Your task to perform on an android device: Open Yahoo.com Image 0: 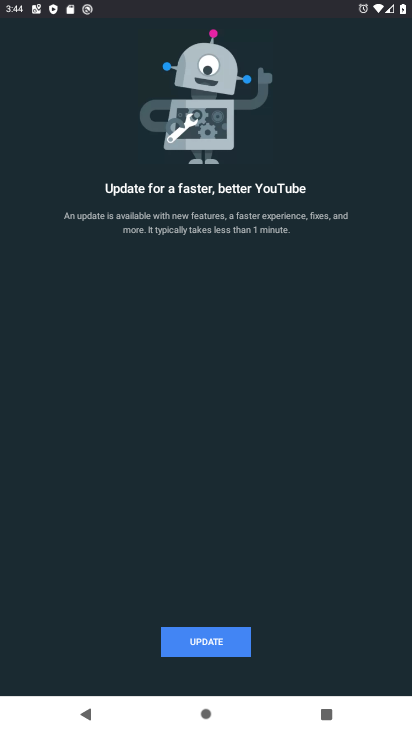
Step 0: press back button
Your task to perform on an android device: Open Yahoo.com Image 1: 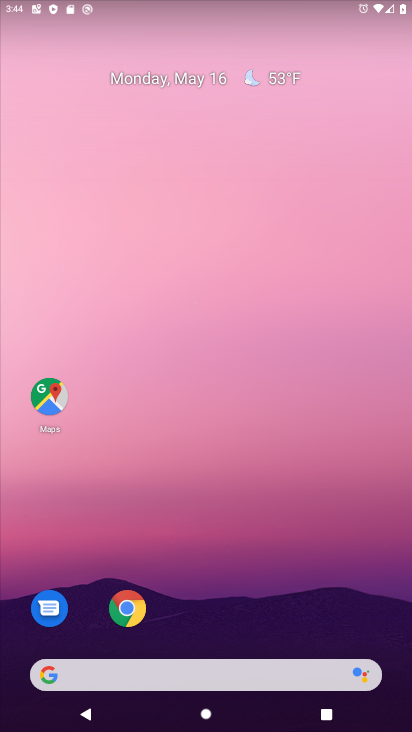
Step 1: click (128, 607)
Your task to perform on an android device: Open Yahoo.com Image 2: 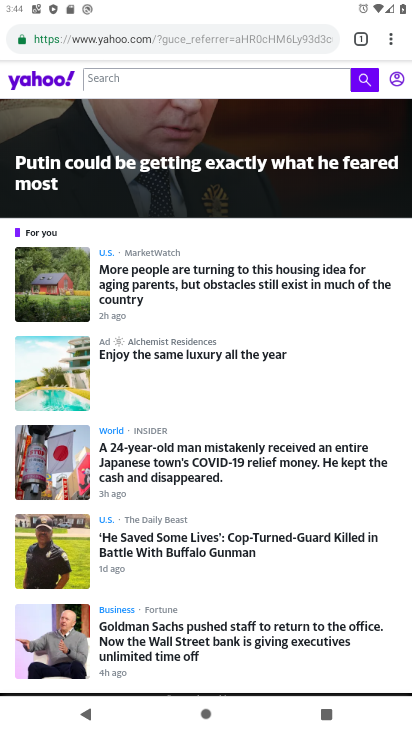
Step 2: click (249, 39)
Your task to perform on an android device: Open Yahoo.com Image 3: 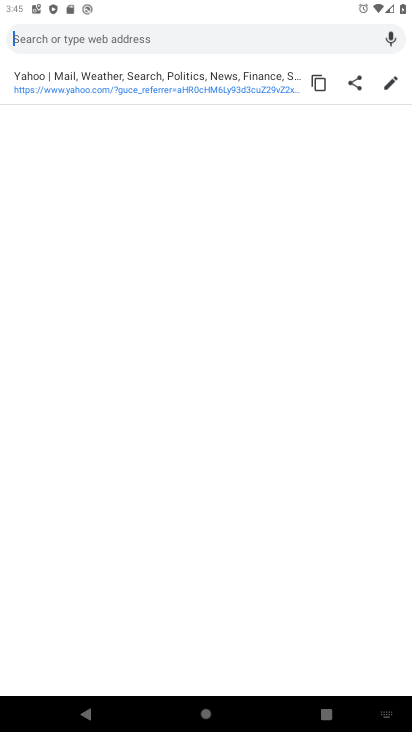
Step 3: type "Yahoo.com"
Your task to perform on an android device: Open Yahoo.com Image 4: 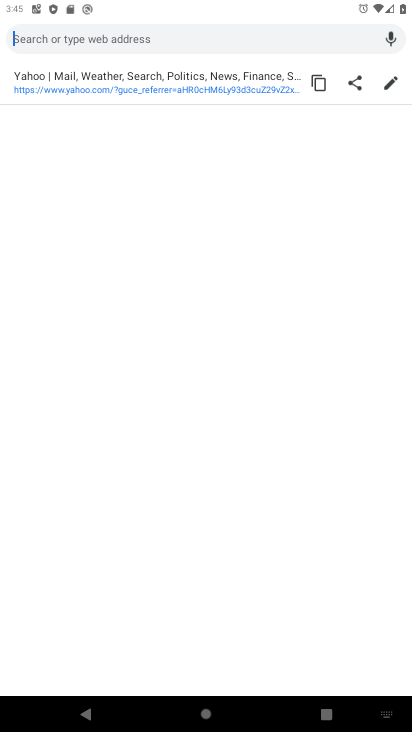
Step 4: click (202, 84)
Your task to perform on an android device: Open Yahoo.com Image 5: 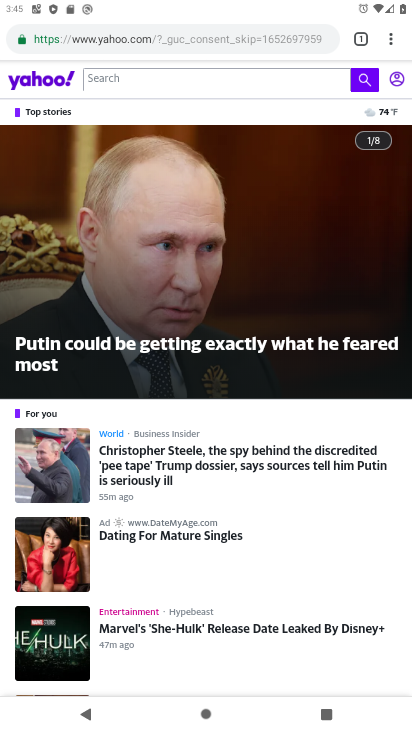
Step 5: task complete